Your task to perform on an android device: open wifi settings Image 0: 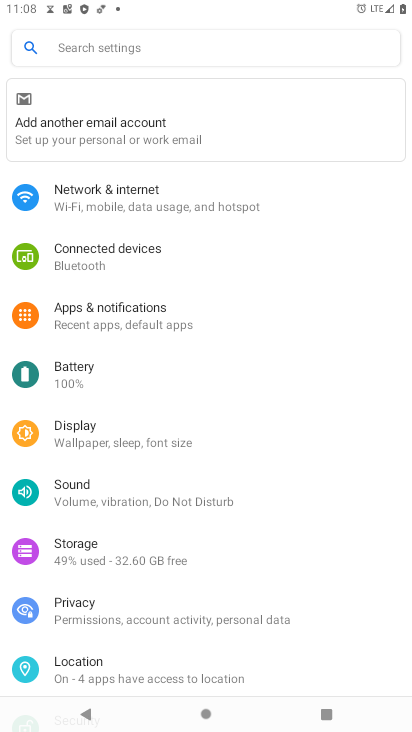
Step 0: click (83, 198)
Your task to perform on an android device: open wifi settings Image 1: 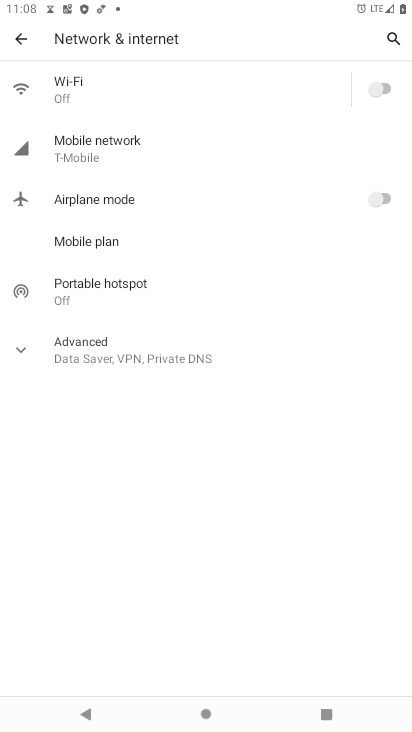
Step 1: click (59, 86)
Your task to perform on an android device: open wifi settings Image 2: 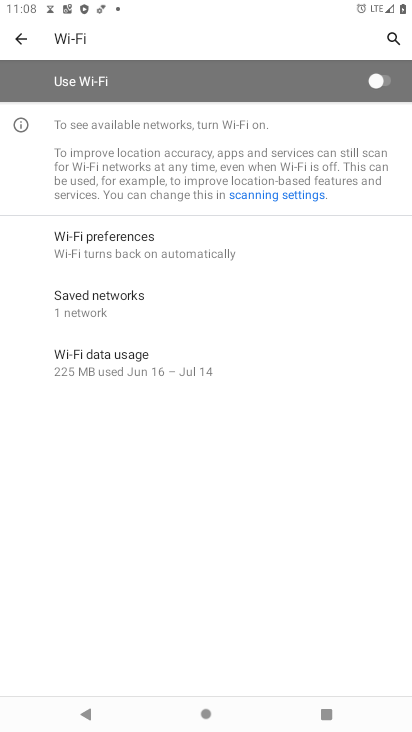
Step 2: task complete